Your task to perform on an android device: Go to CNN.com Image 0: 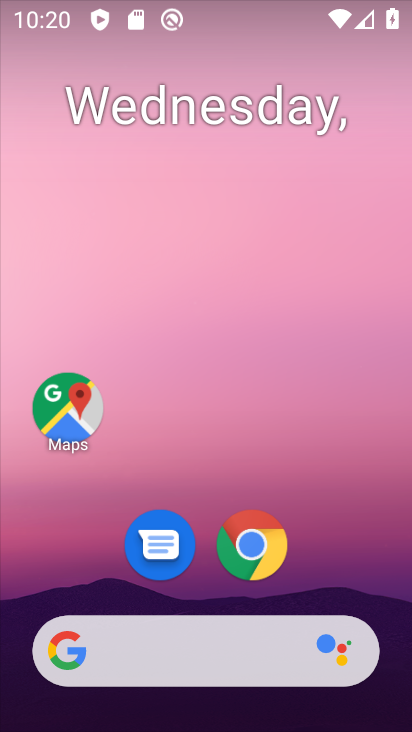
Step 0: click (245, 519)
Your task to perform on an android device: Go to CNN.com Image 1: 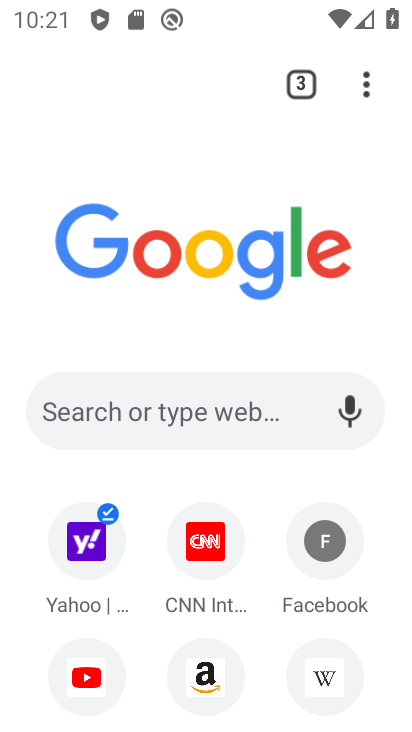
Step 1: click (166, 415)
Your task to perform on an android device: Go to CNN.com Image 2: 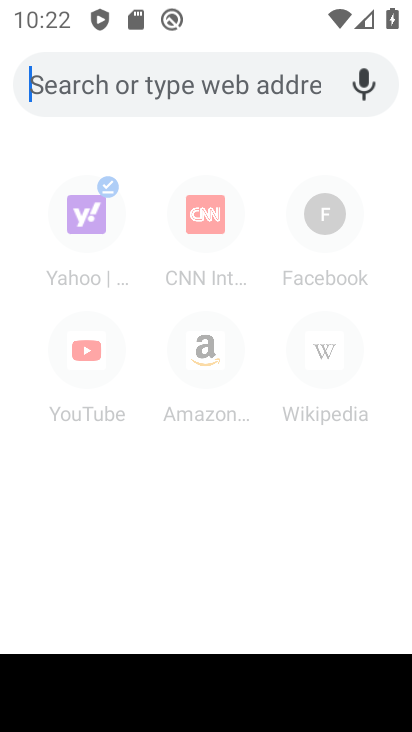
Step 2: type "CNN.com"
Your task to perform on an android device: Go to CNN.com Image 3: 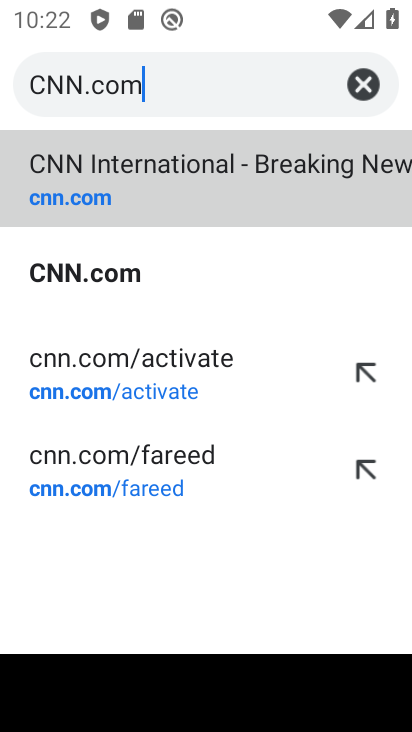
Step 3: click (225, 181)
Your task to perform on an android device: Go to CNN.com Image 4: 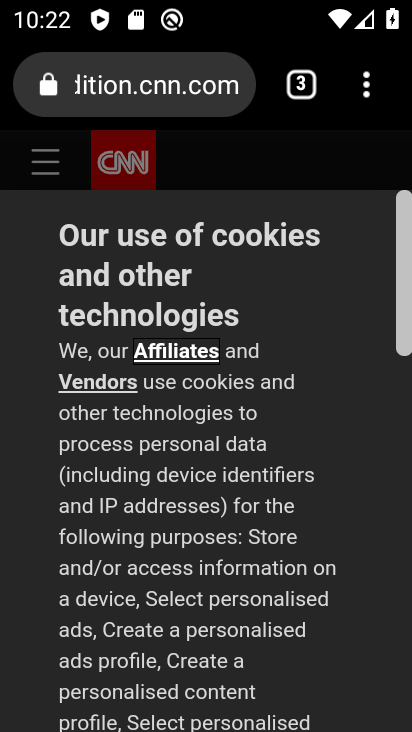
Step 4: task complete